Your task to perform on an android device: What's on the menu at Subway? Image 0: 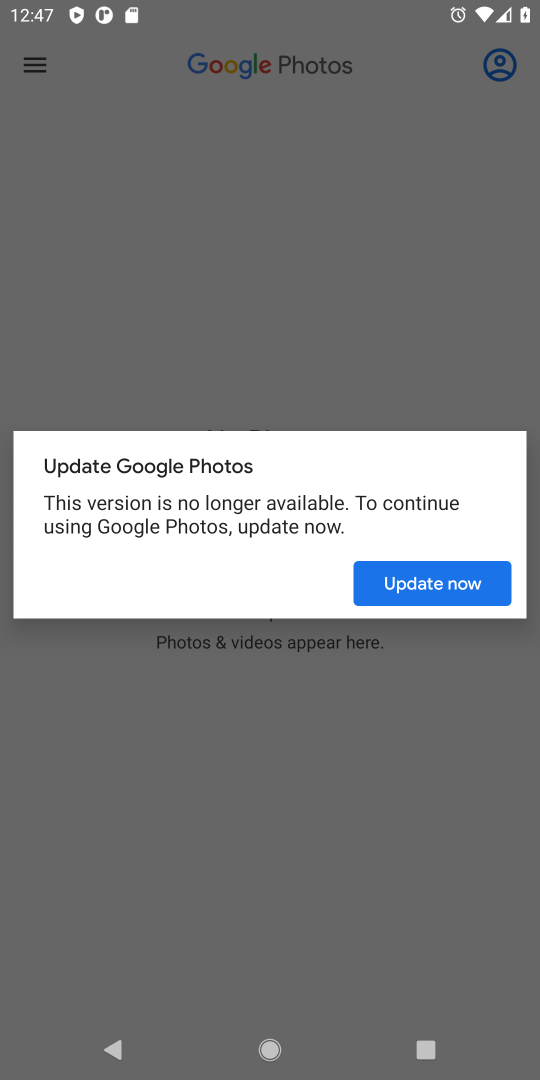
Step 0: press home button
Your task to perform on an android device: What's on the menu at Subway? Image 1: 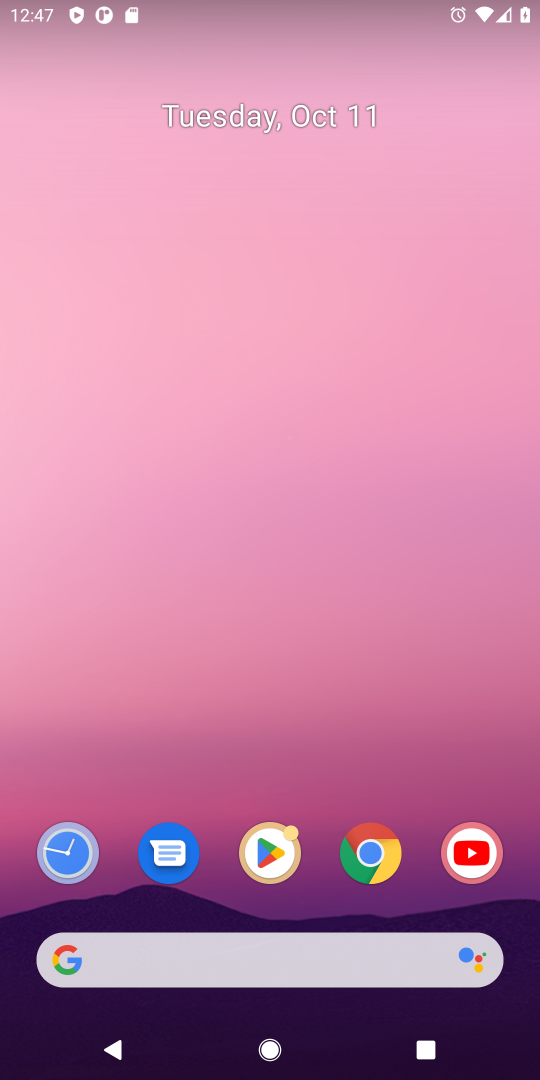
Step 1: drag from (330, 657) to (355, 51)
Your task to perform on an android device: What's on the menu at Subway? Image 2: 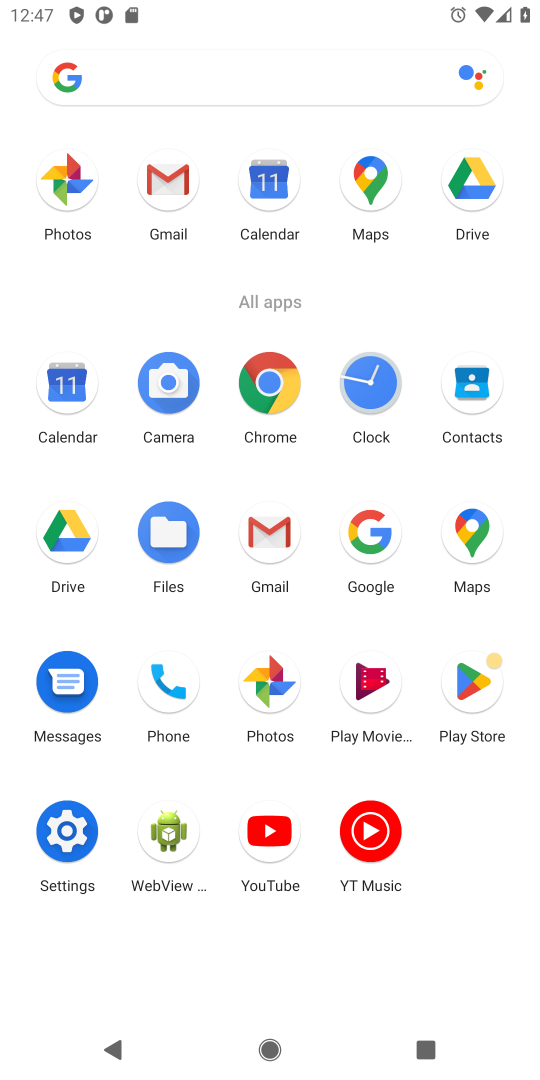
Step 2: click (279, 403)
Your task to perform on an android device: What's on the menu at Subway? Image 3: 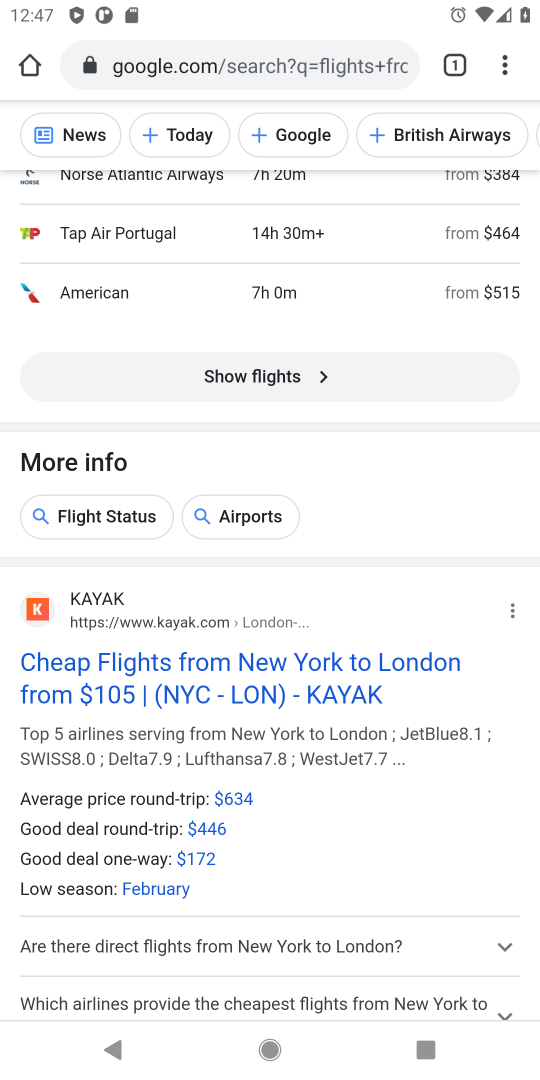
Step 3: click (289, 70)
Your task to perform on an android device: What's on the menu at Subway? Image 4: 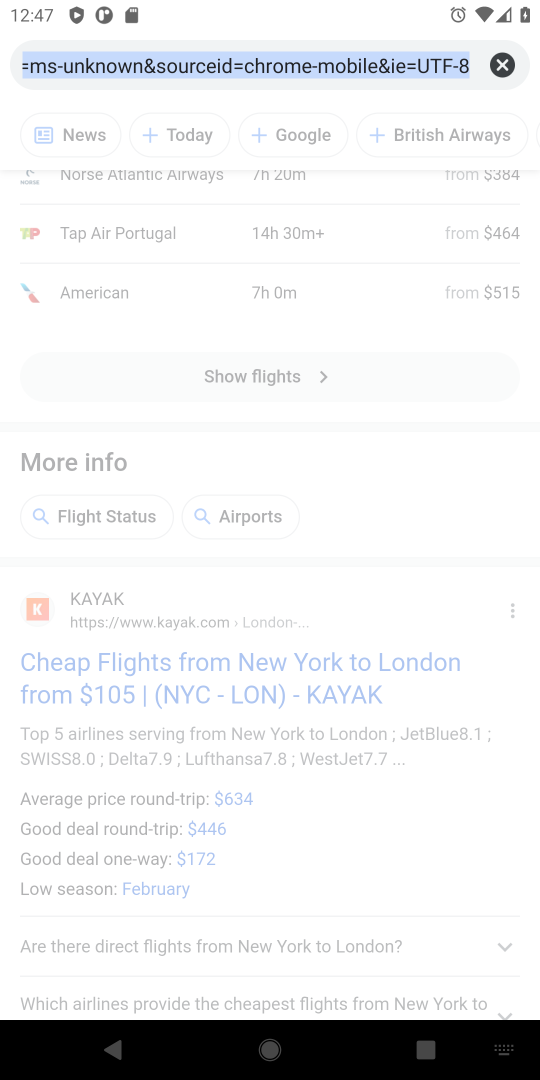
Step 4: type "What's on the menu at Subway?"
Your task to perform on an android device: What's on the menu at Subway? Image 5: 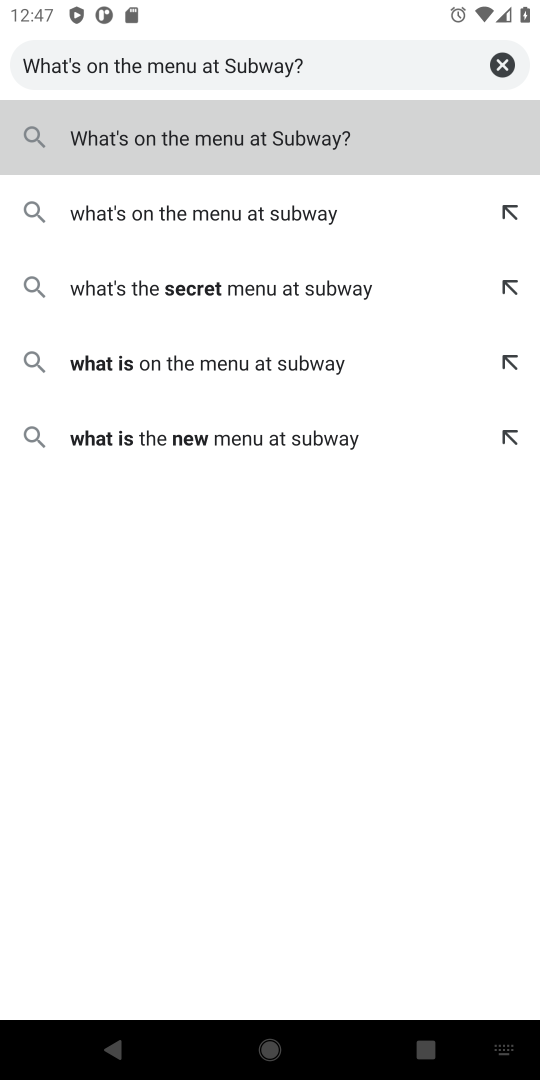
Step 5: type ""
Your task to perform on an android device: What's on the menu at Subway? Image 6: 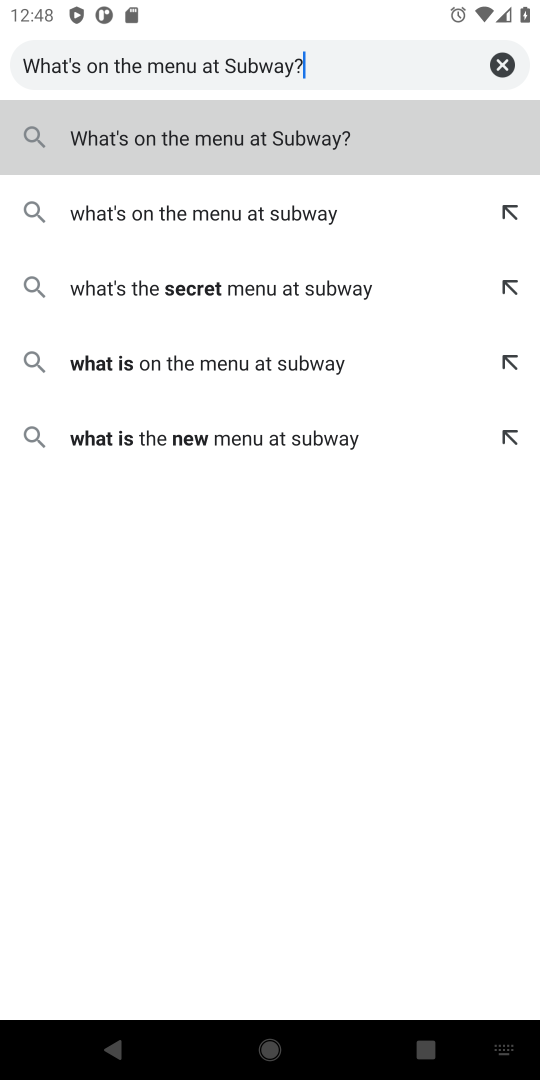
Step 6: click (345, 125)
Your task to perform on an android device: What's on the menu at Subway? Image 7: 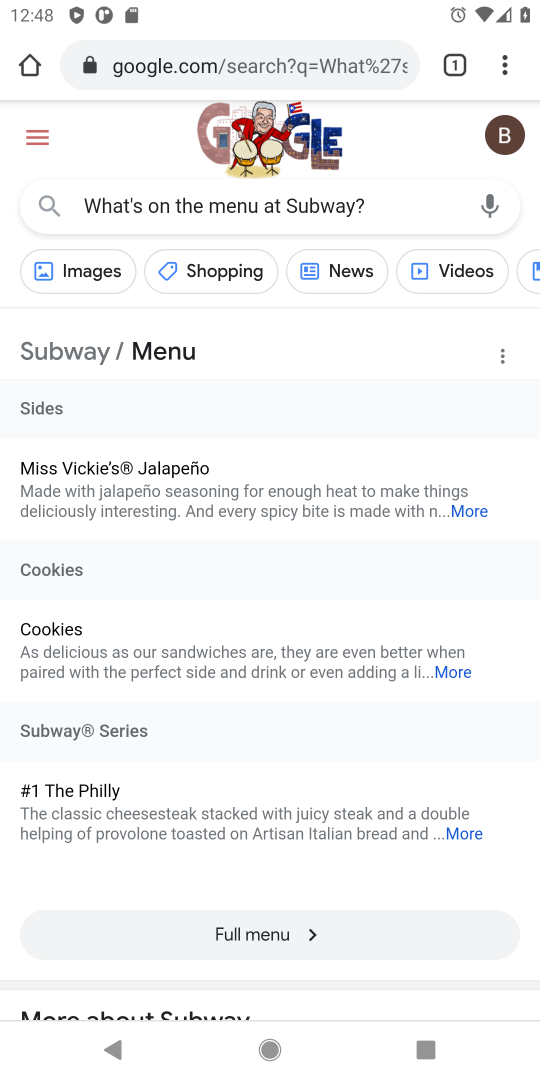
Step 7: drag from (266, 826) to (366, 310)
Your task to perform on an android device: What's on the menu at Subway? Image 8: 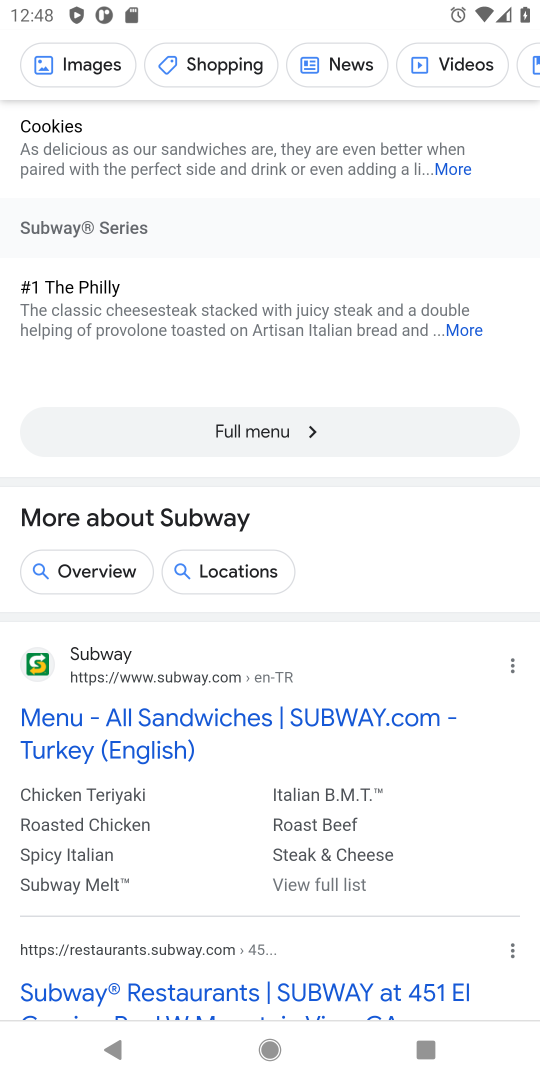
Step 8: click (201, 719)
Your task to perform on an android device: What's on the menu at Subway? Image 9: 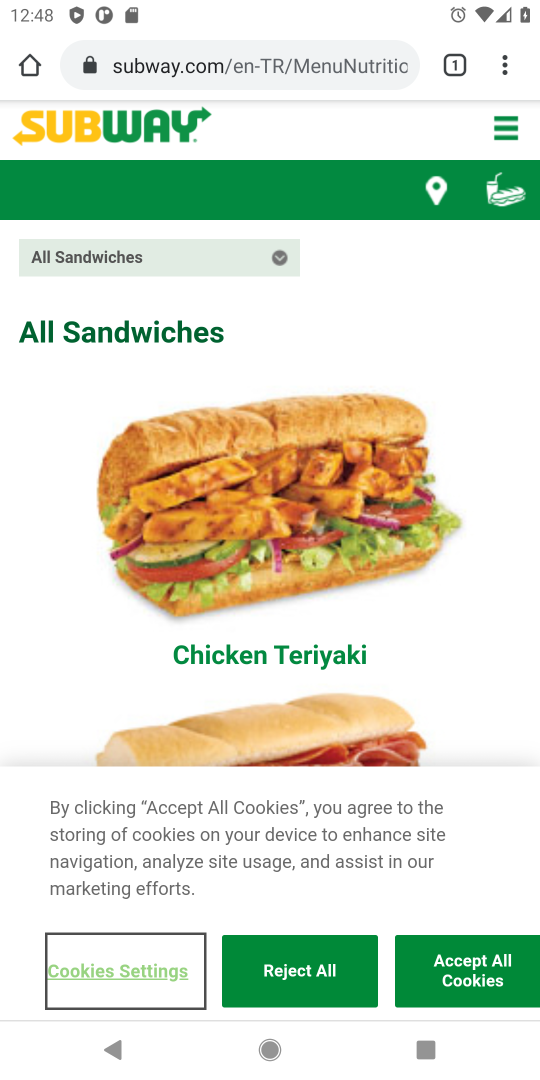
Step 9: click (354, 959)
Your task to perform on an android device: What's on the menu at Subway? Image 10: 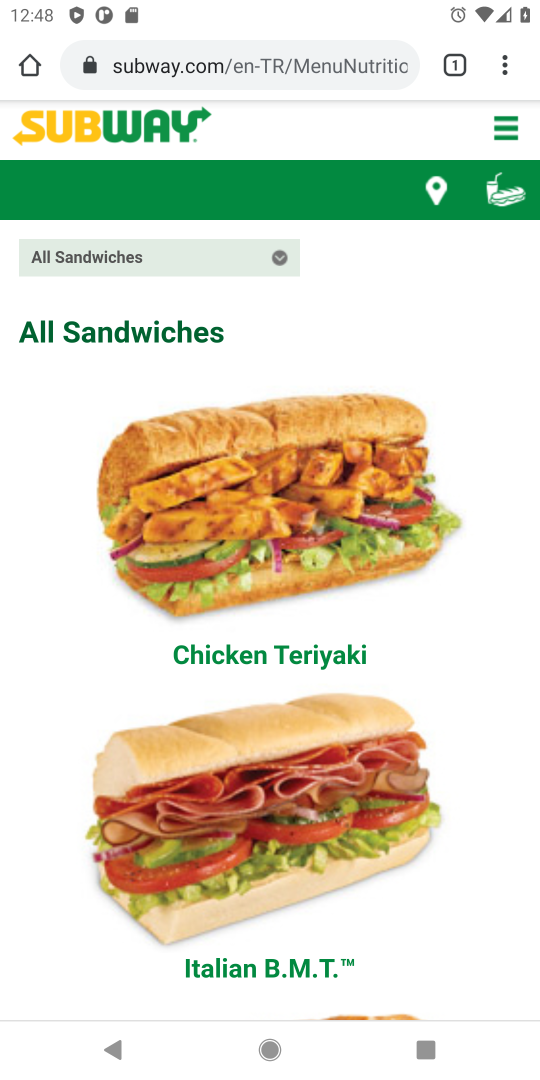
Step 10: drag from (350, 959) to (480, 261)
Your task to perform on an android device: What's on the menu at Subway? Image 11: 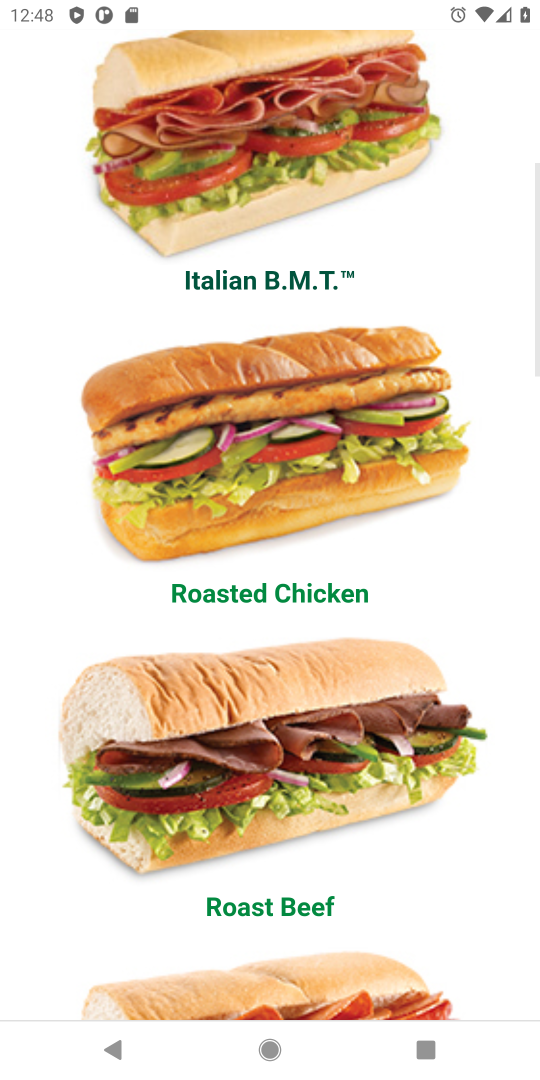
Step 11: drag from (383, 813) to (485, 212)
Your task to perform on an android device: What's on the menu at Subway? Image 12: 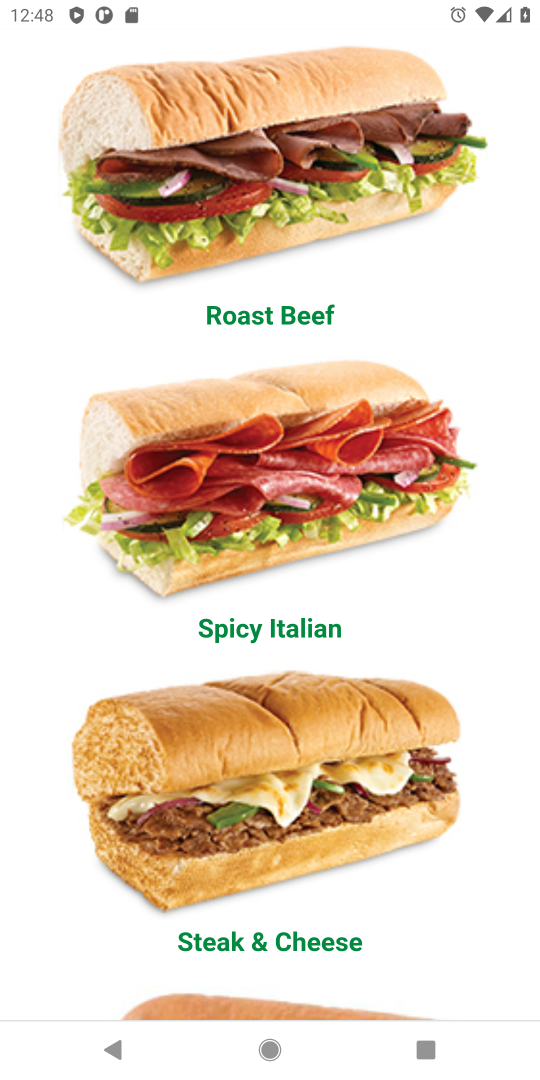
Step 12: drag from (468, 787) to (435, 220)
Your task to perform on an android device: What's on the menu at Subway? Image 13: 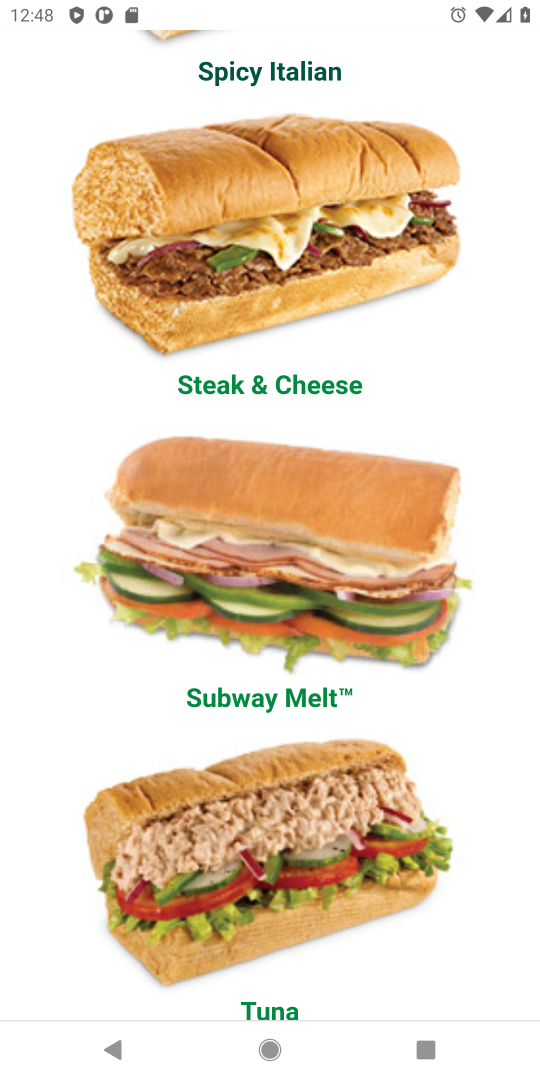
Step 13: drag from (431, 686) to (441, 166)
Your task to perform on an android device: What's on the menu at Subway? Image 14: 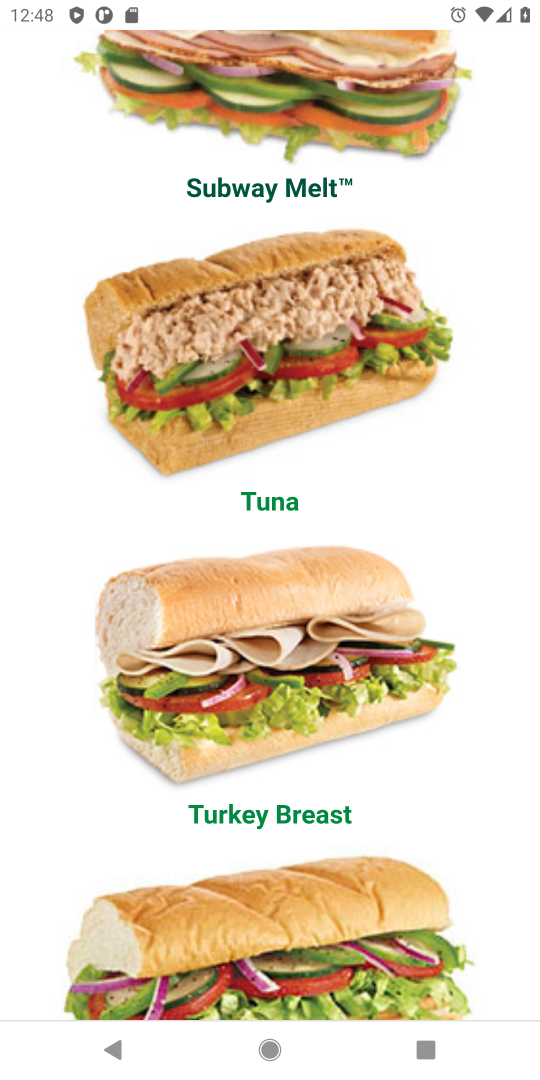
Step 14: drag from (492, 692) to (452, 71)
Your task to perform on an android device: What's on the menu at Subway? Image 15: 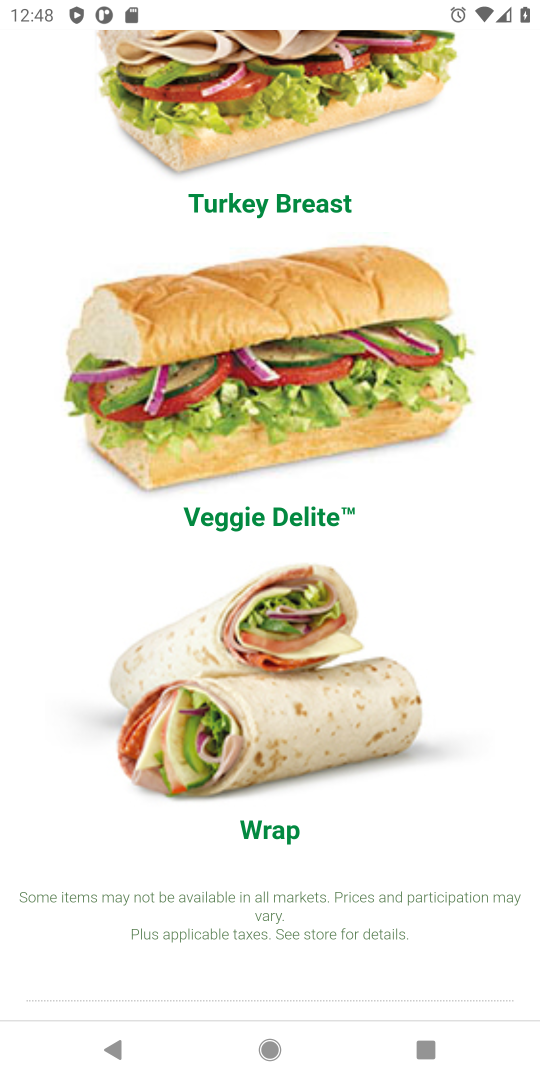
Step 15: drag from (408, 710) to (454, 420)
Your task to perform on an android device: What's on the menu at Subway? Image 16: 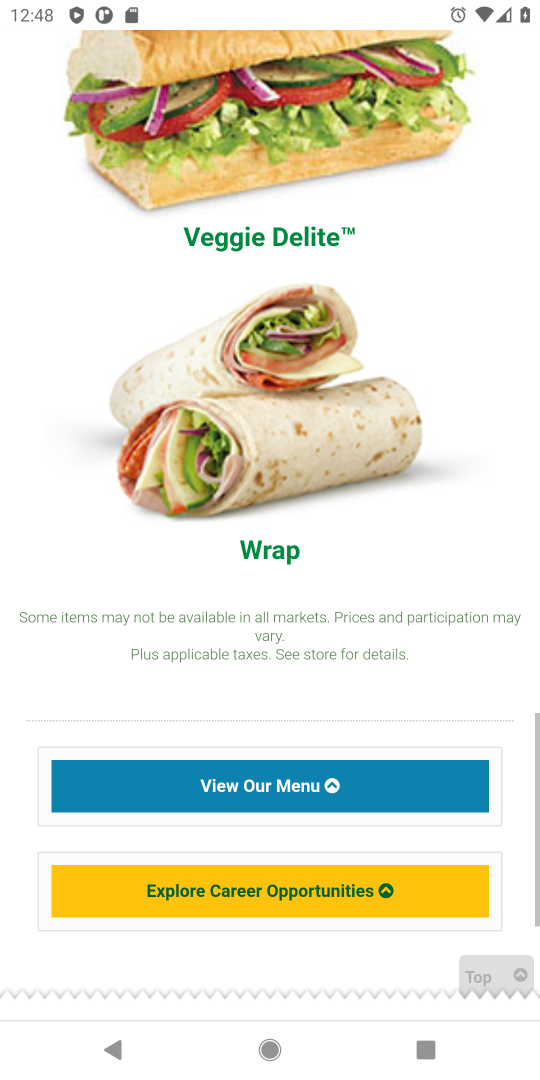
Step 16: drag from (464, 617) to (501, 279)
Your task to perform on an android device: What's on the menu at Subway? Image 17: 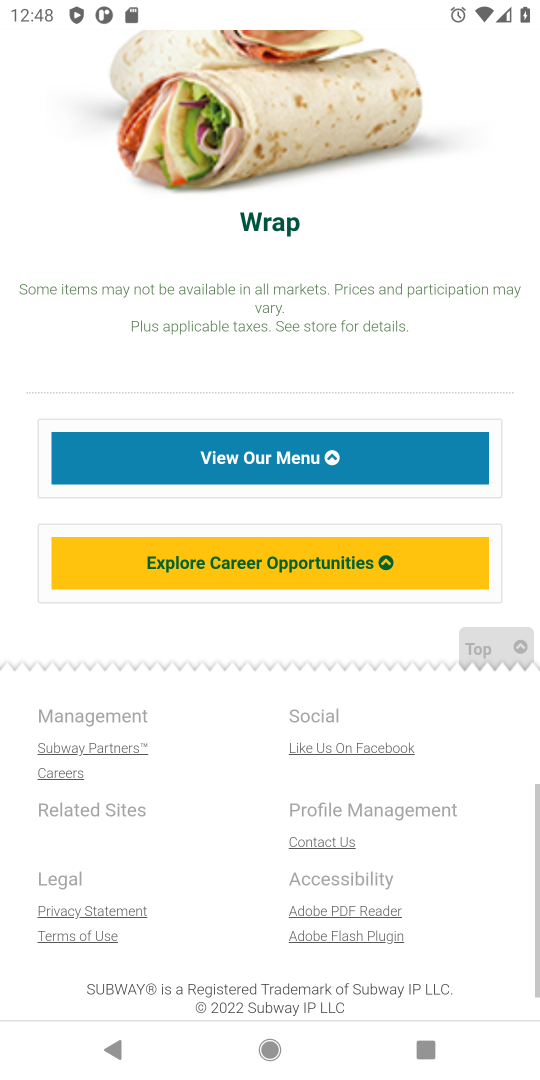
Step 17: drag from (501, 279) to (482, 846)
Your task to perform on an android device: What's on the menu at Subway? Image 18: 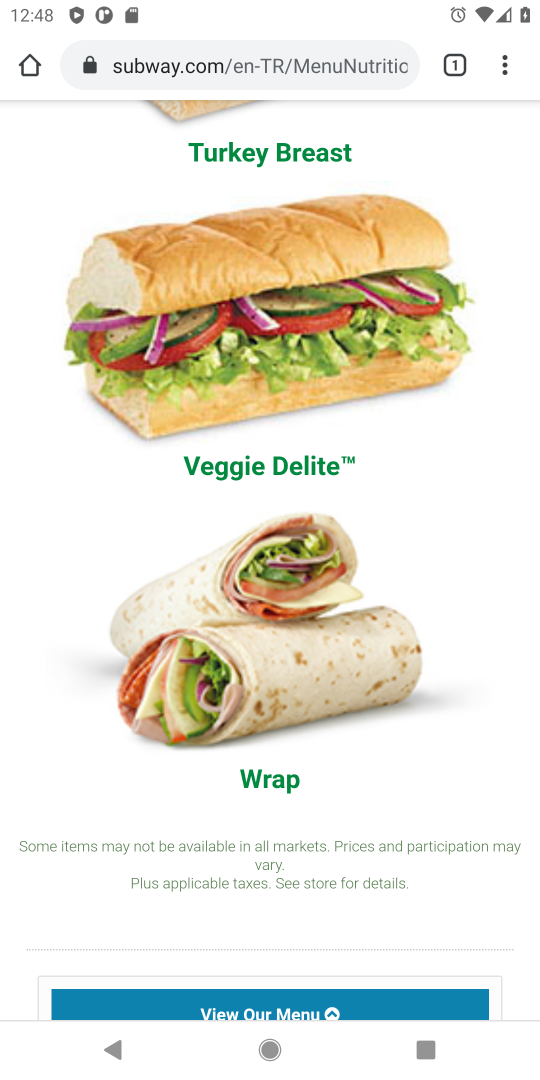
Step 18: drag from (456, 361) to (506, 898)
Your task to perform on an android device: What's on the menu at Subway? Image 19: 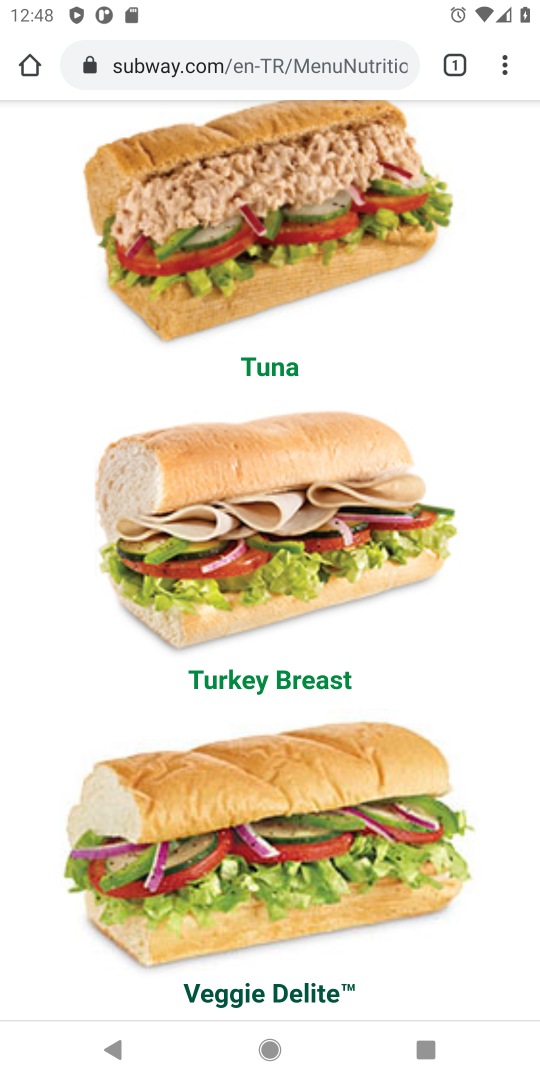
Step 19: drag from (509, 229) to (514, 907)
Your task to perform on an android device: What's on the menu at Subway? Image 20: 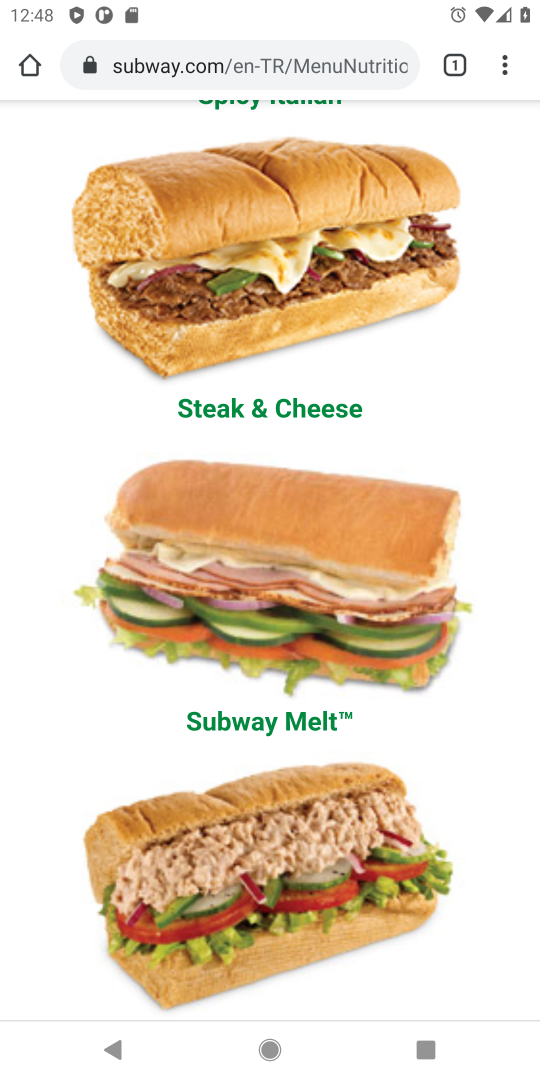
Step 20: drag from (477, 177) to (490, 868)
Your task to perform on an android device: What's on the menu at Subway? Image 21: 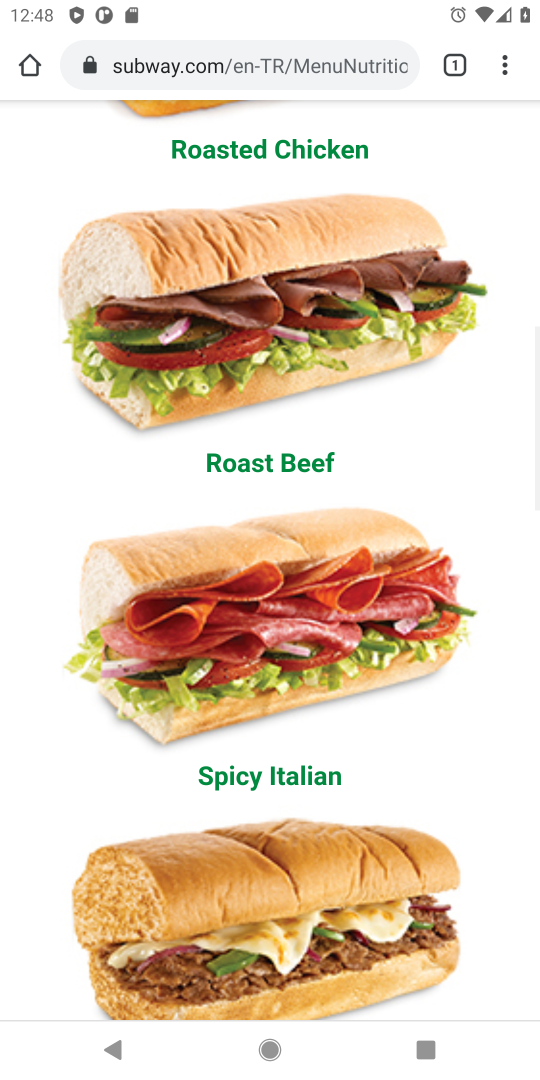
Step 21: drag from (520, 189) to (515, 689)
Your task to perform on an android device: What's on the menu at Subway? Image 22: 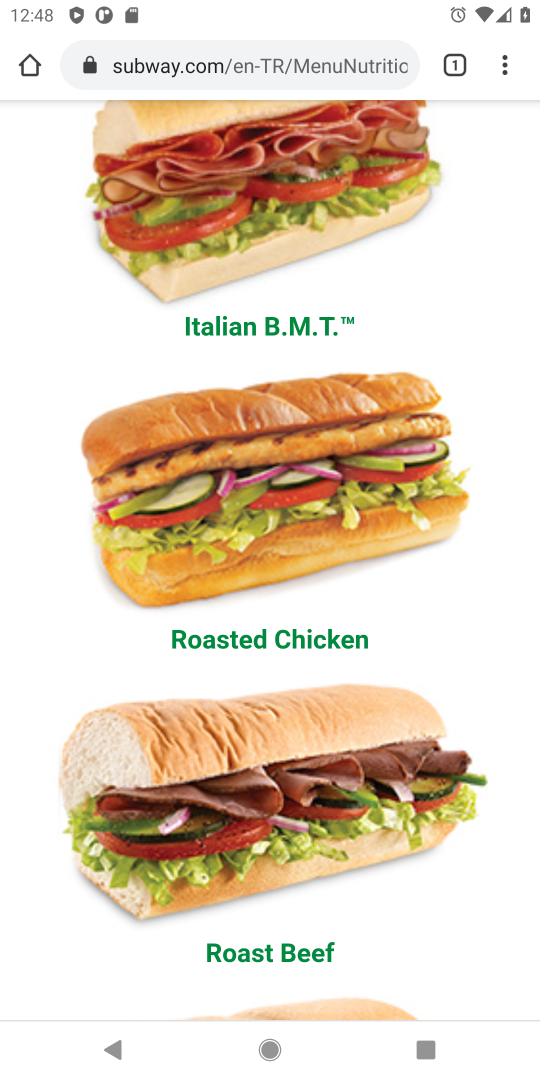
Step 22: drag from (450, 309) to (485, 777)
Your task to perform on an android device: What's on the menu at Subway? Image 23: 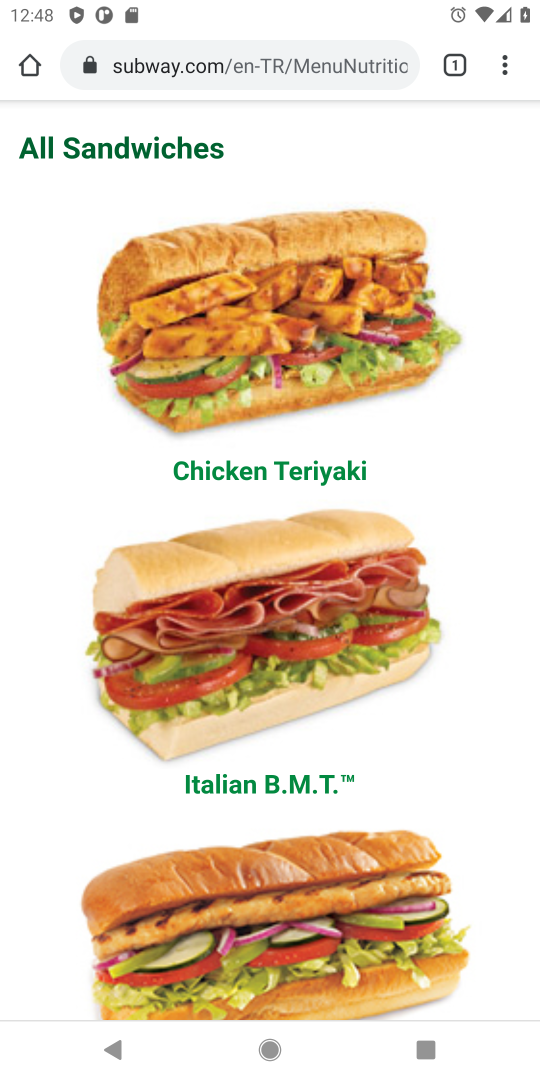
Step 23: press back button
Your task to perform on an android device: What's on the menu at Subway? Image 24: 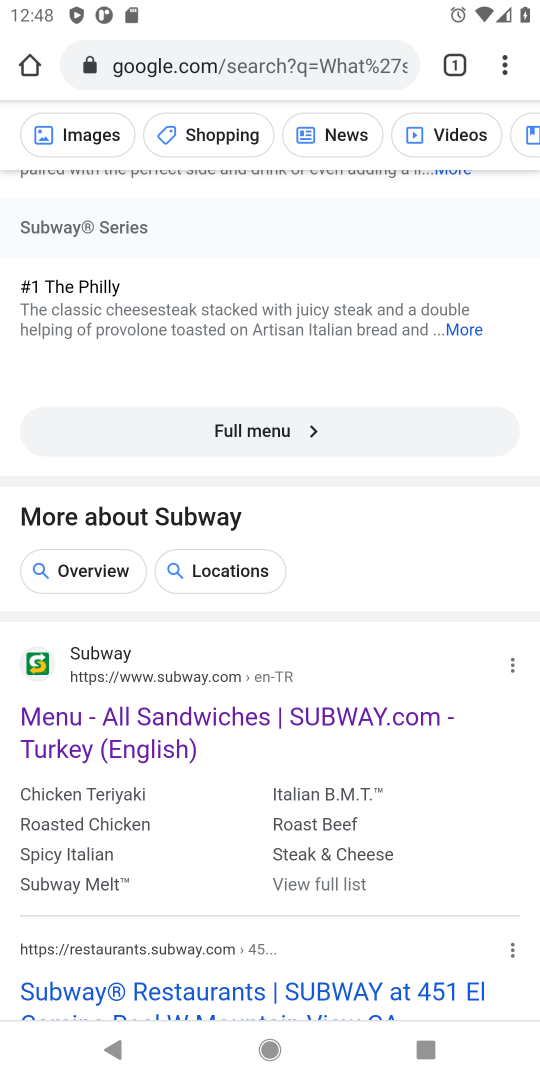
Step 24: drag from (209, 836) to (180, 371)
Your task to perform on an android device: What's on the menu at Subway? Image 25: 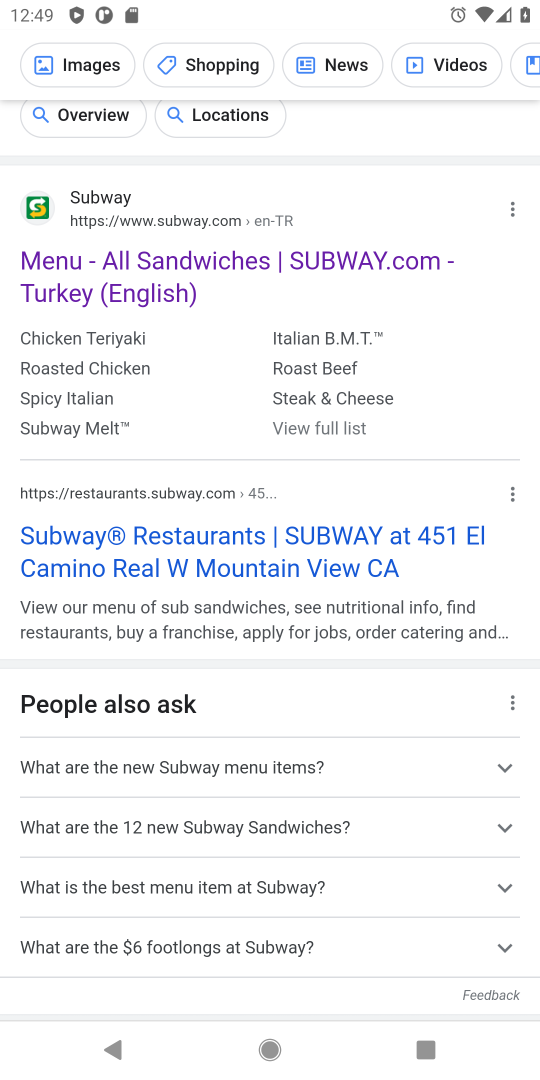
Step 25: click (157, 540)
Your task to perform on an android device: What's on the menu at Subway? Image 26: 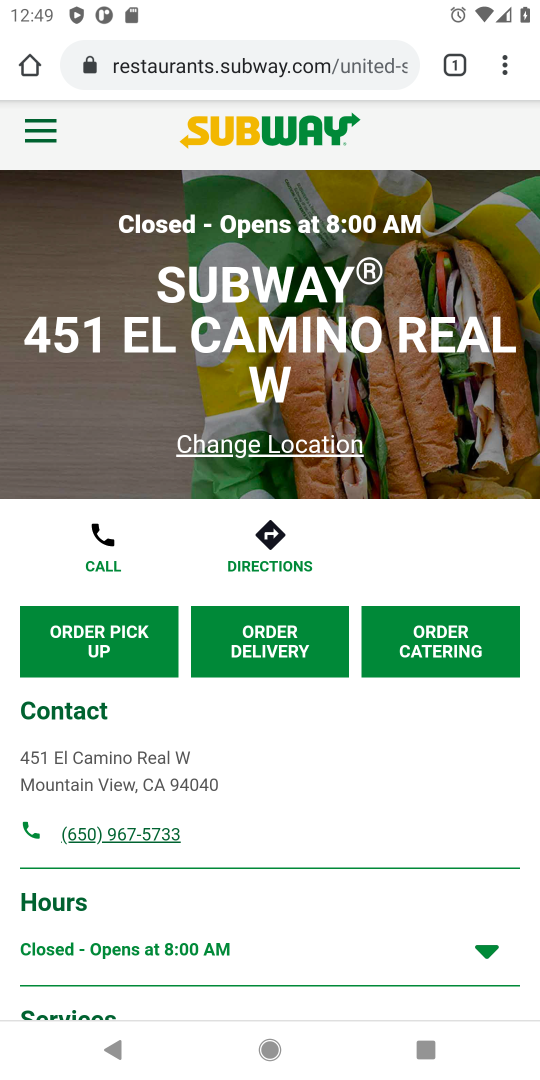
Step 26: drag from (239, 783) to (253, 285)
Your task to perform on an android device: What's on the menu at Subway? Image 27: 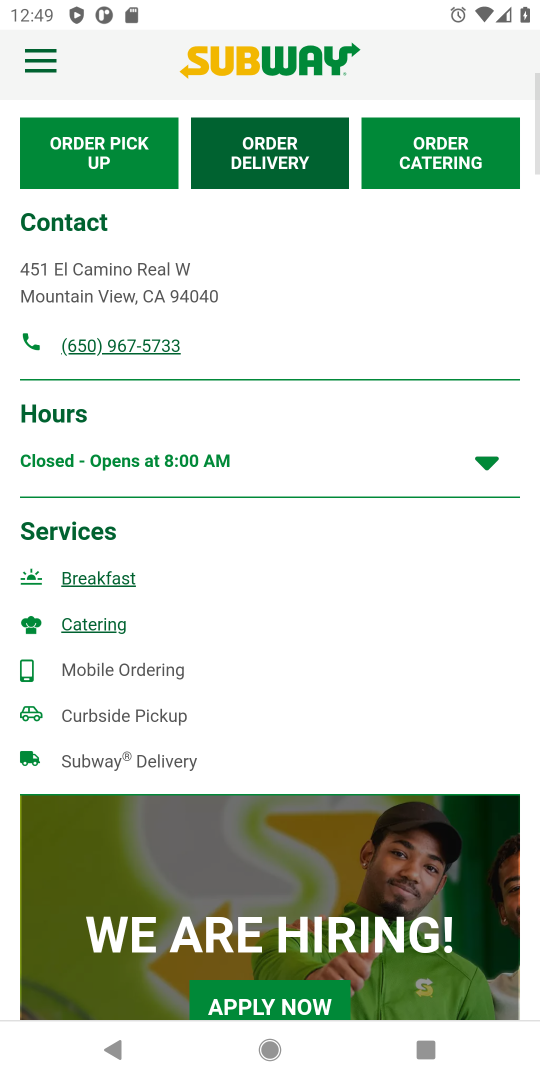
Step 27: drag from (374, 811) to (407, 429)
Your task to perform on an android device: What's on the menu at Subway? Image 28: 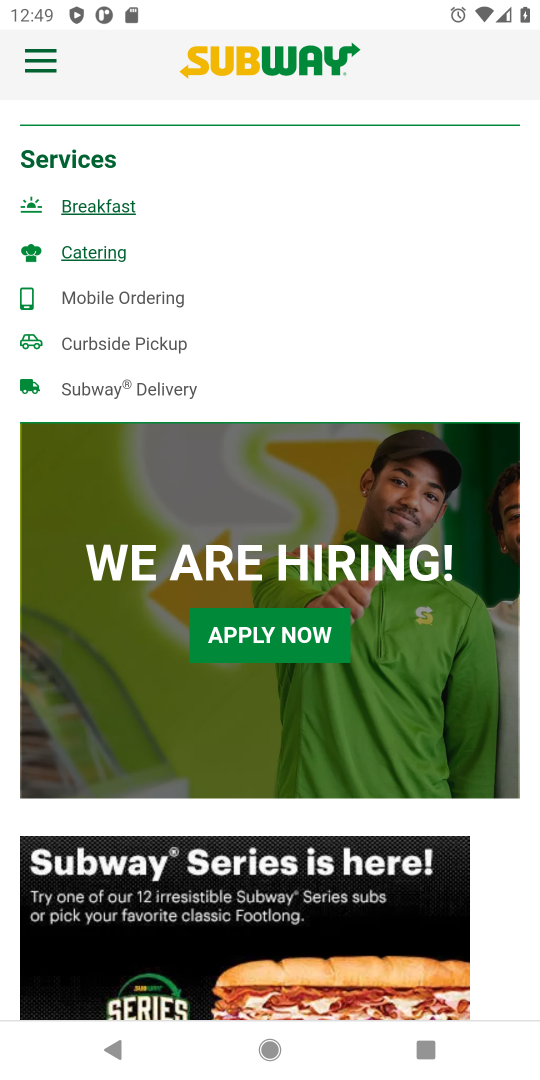
Step 28: drag from (405, 876) to (482, 144)
Your task to perform on an android device: What's on the menu at Subway? Image 29: 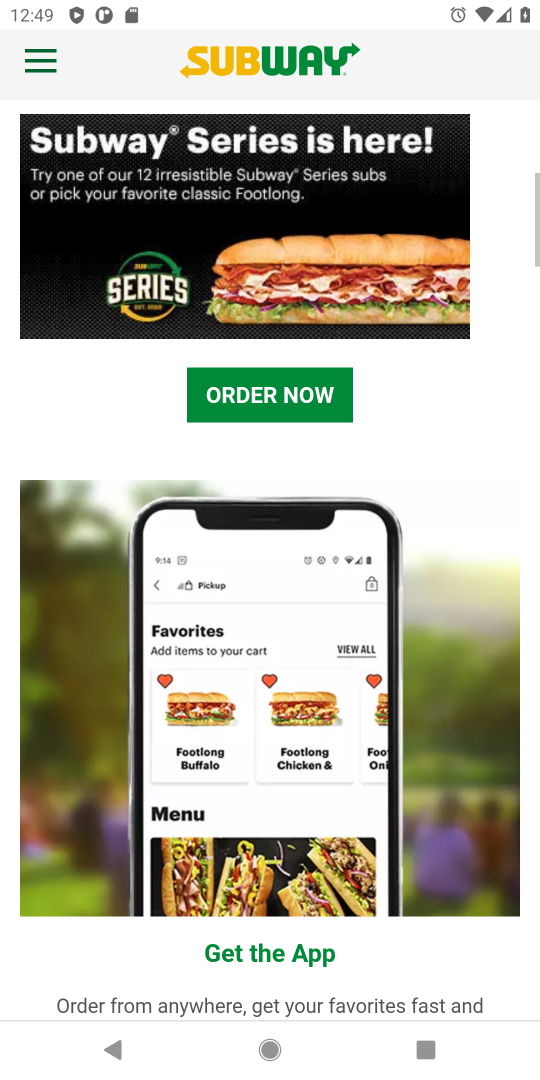
Step 29: drag from (389, 836) to (452, 253)
Your task to perform on an android device: What's on the menu at Subway? Image 30: 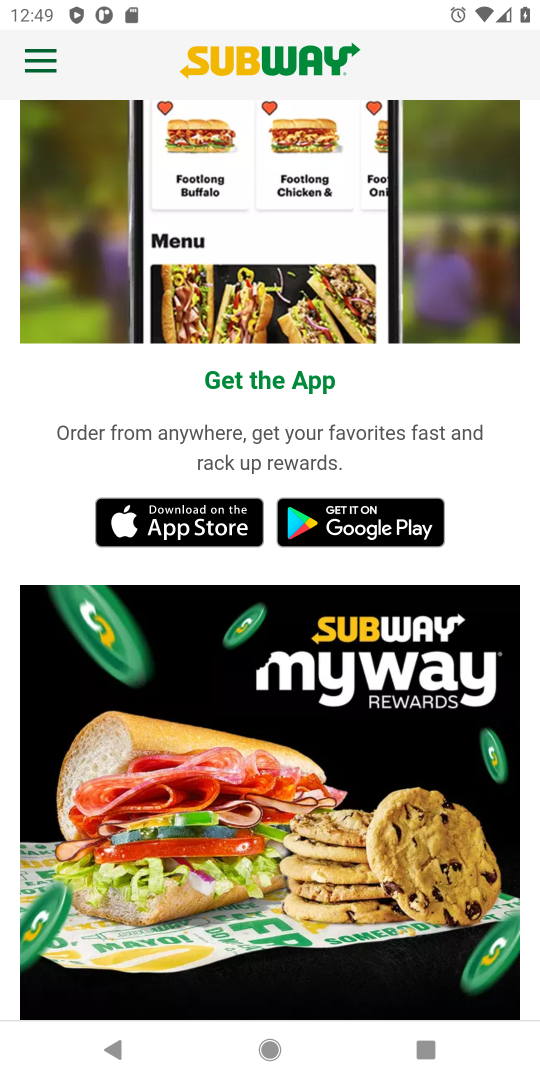
Step 30: drag from (320, 825) to (423, 154)
Your task to perform on an android device: What's on the menu at Subway? Image 31: 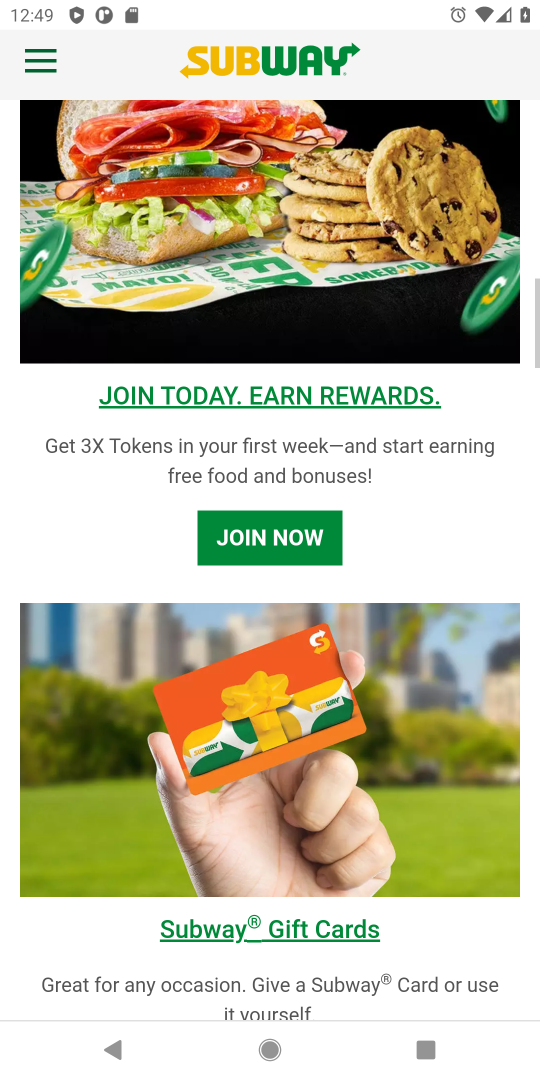
Step 31: drag from (399, 776) to (489, 172)
Your task to perform on an android device: What's on the menu at Subway? Image 32: 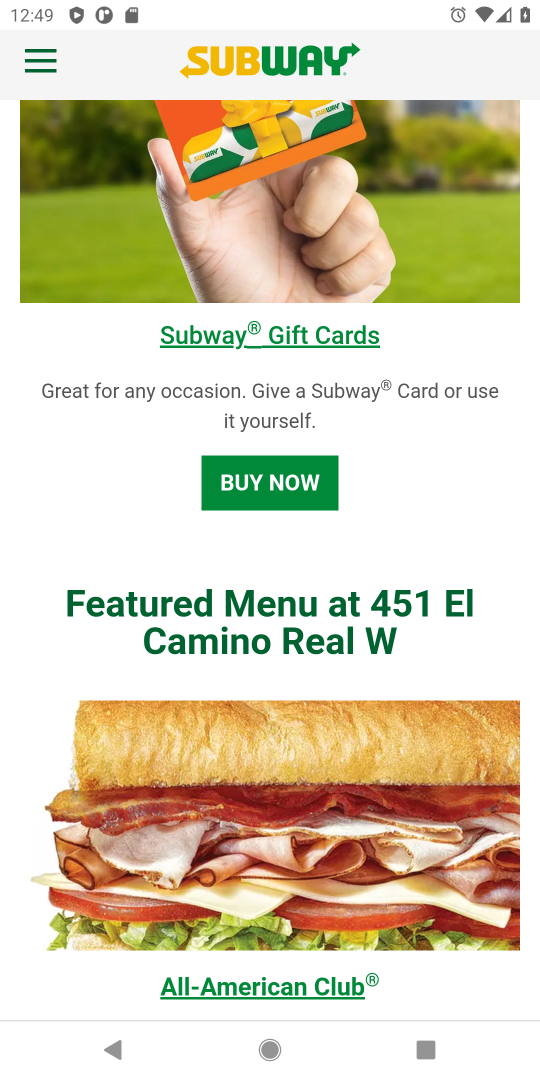
Step 32: drag from (384, 701) to (488, 92)
Your task to perform on an android device: What's on the menu at Subway? Image 33: 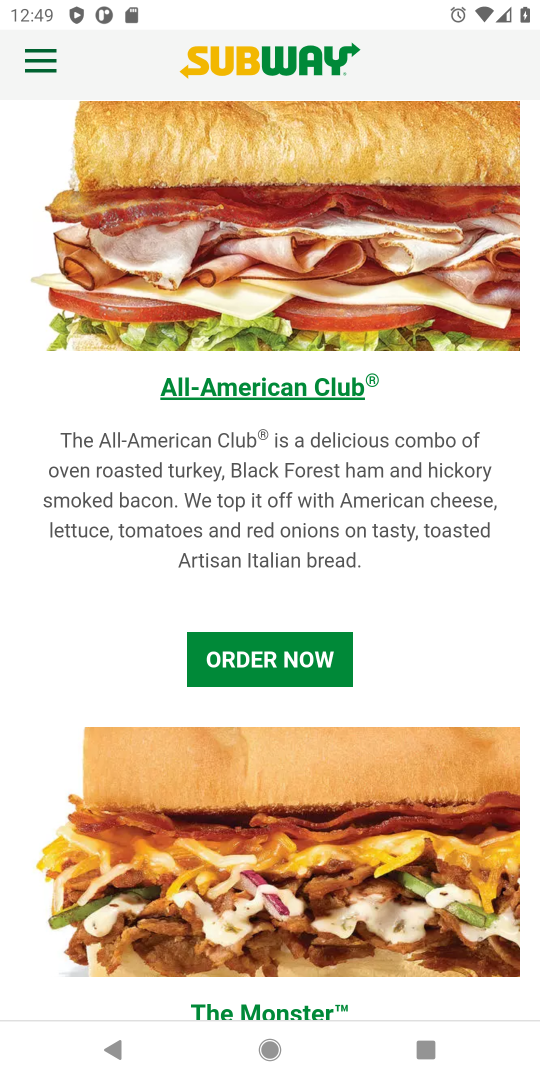
Step 33: click (316, 668)
Your task to perform on an android device: What's on the menu at Subway? Image 34: 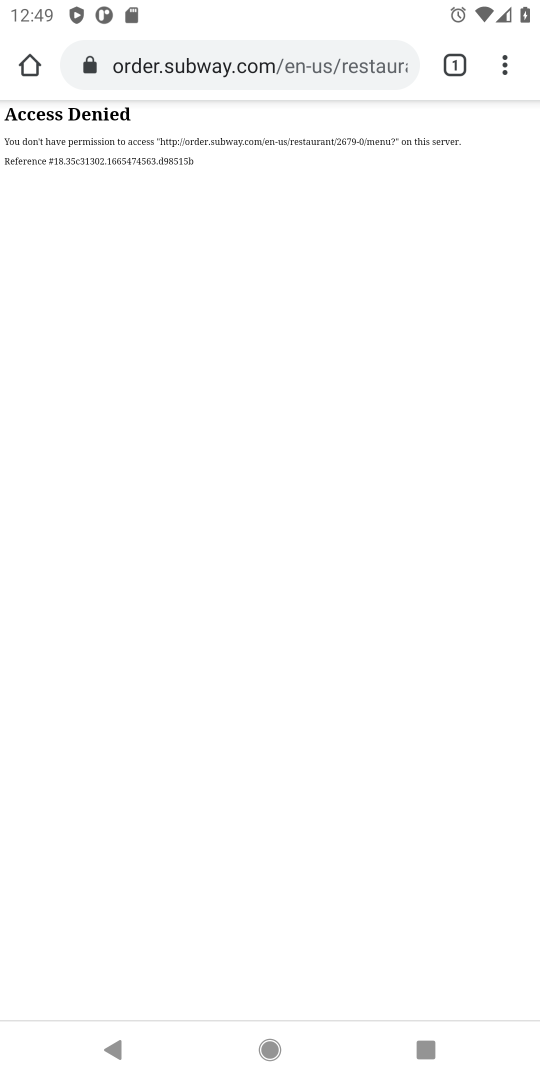
Step 34: press back button
Your task to perform on an android device: What's on the menu at Subway? Image 35: 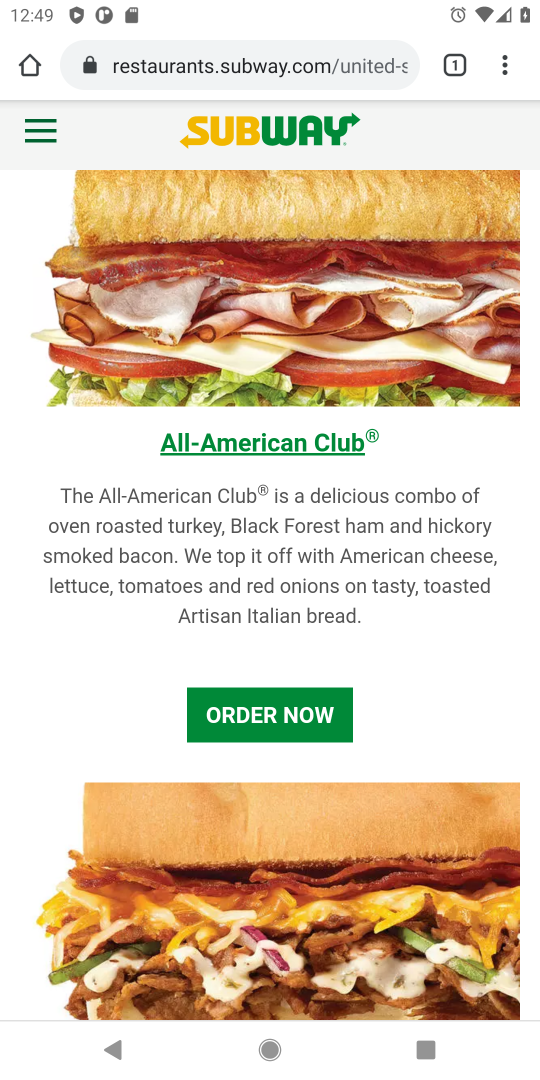
Step 35: drag from (357, 764) to (415, 286)
Your task to perform on an android device: What's on the menu at Subway? Image 36: 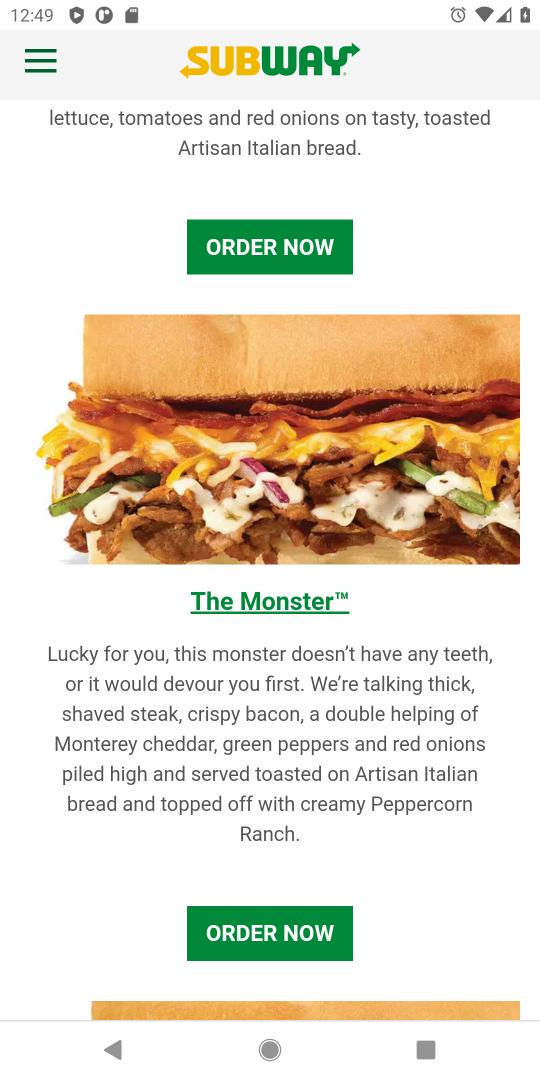
Step 36: click (237, 918)
Your task to perform on an android device: What's on the menu at Subway? Image 37: 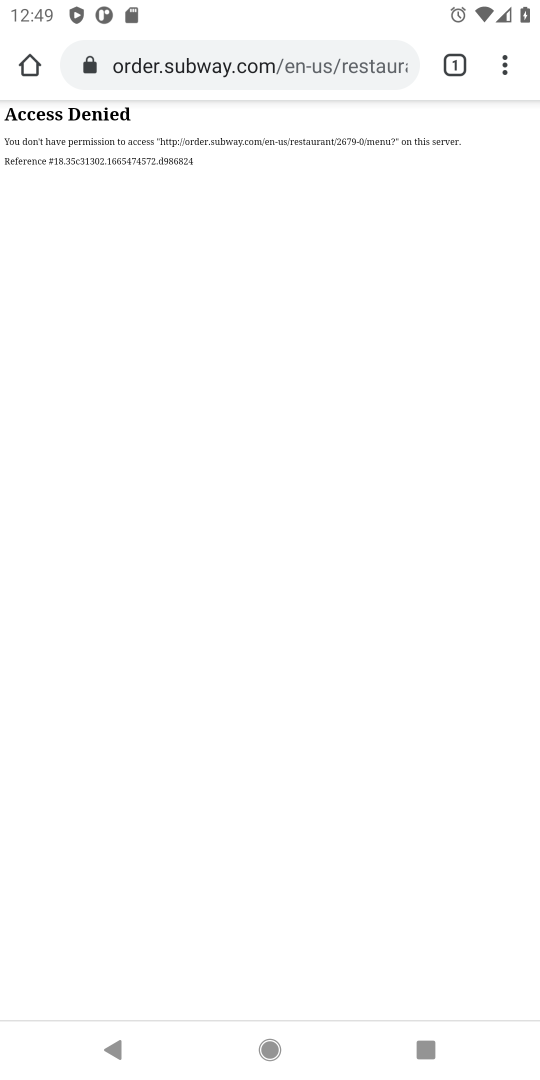
Step 37: press back button
Your task to perform on an android device: What's on the menu at Subway? Image 38: 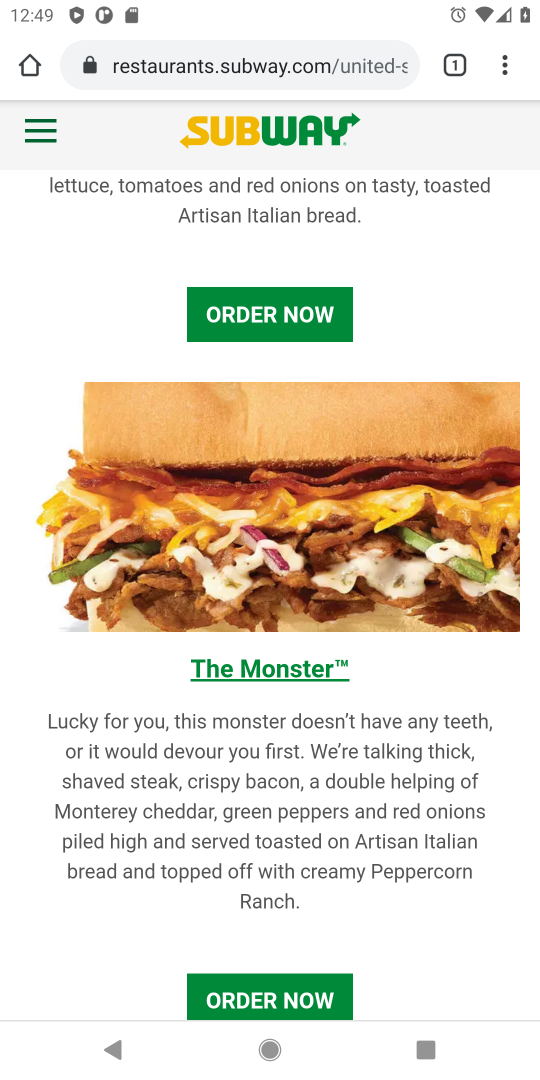
Step 38: drag from (369, 386) to (361, 895)
Your task to perform on an android device: What's on the menu at Subway? Image 39: 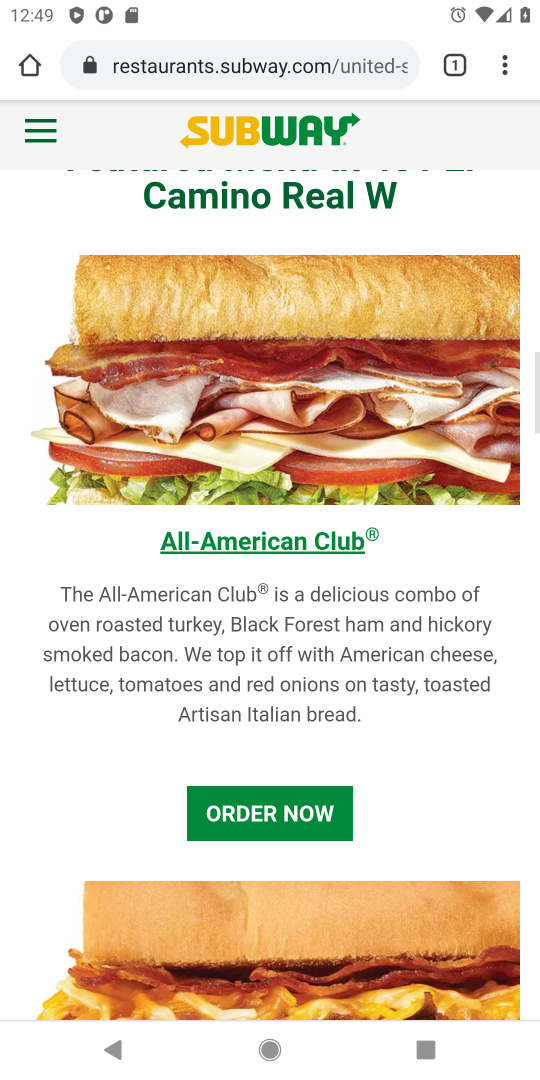
Step 39: press back button
Your task to perform on an android device: What's on the menu at Subway? Image 40: 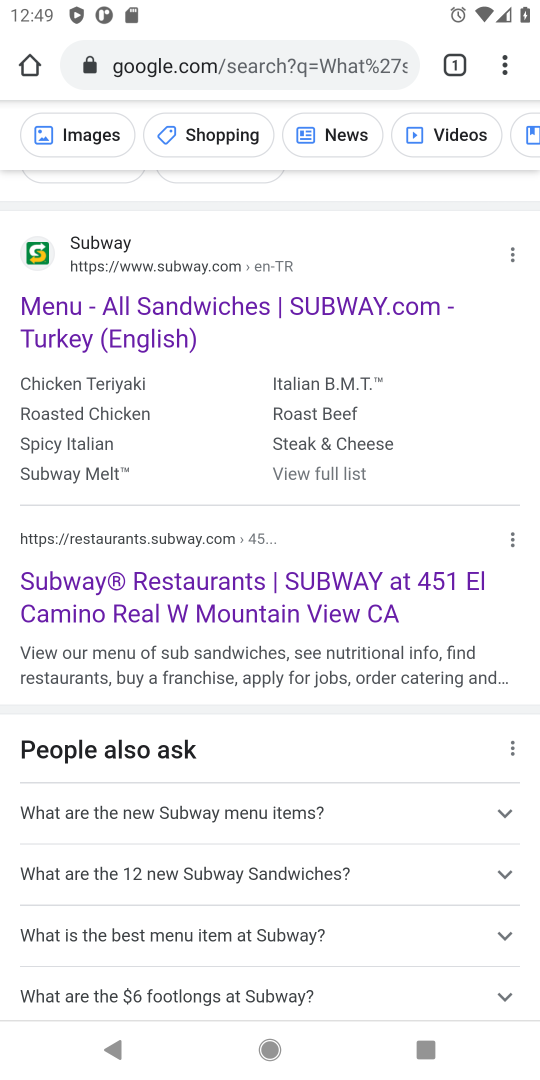
Step 40: drag from (328, 830) to (402, 209)
Your task to perform on an android device: What's on the menu at Subway? Image 41: 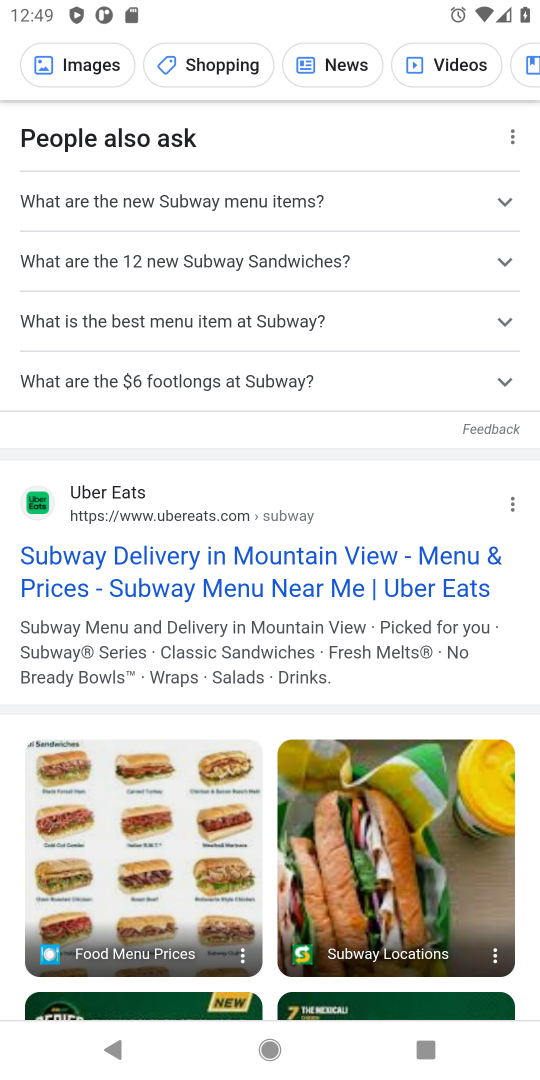
Step 41: click (251, 593)
Your task to perform on an android device: What's on the menu at Subway? Image 42: 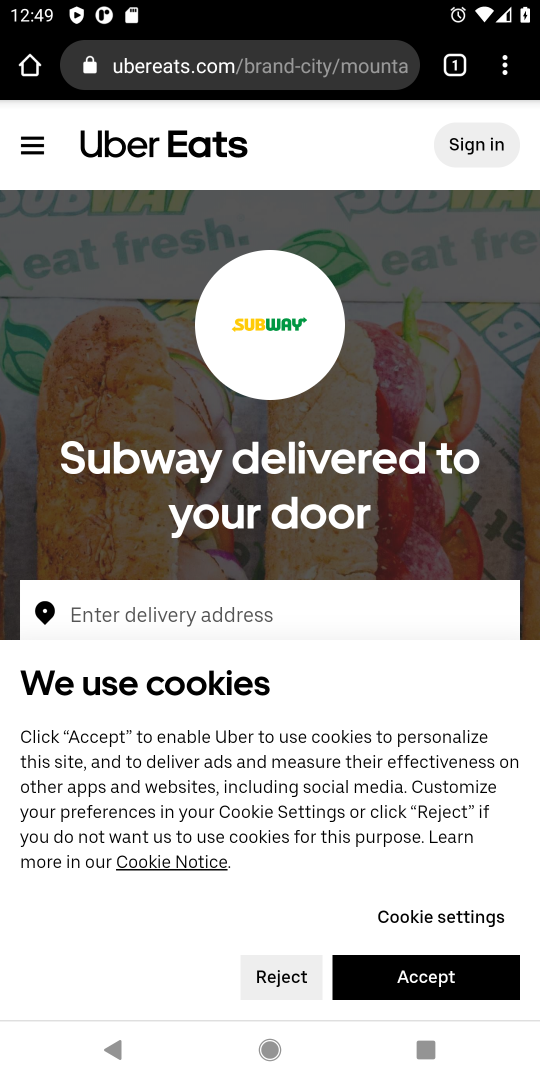
Step 42: click (289, 977)
Your task to perform on an android device: What's on the menu at Subway? Image 43: 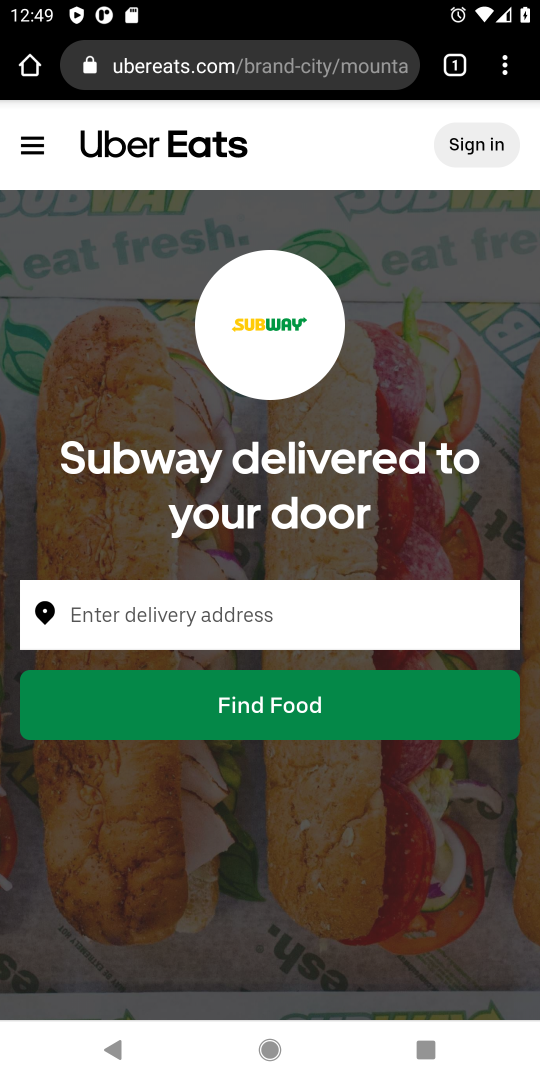
Step 43: task complete